Your task to perform on an android device: Open settings Image 0: 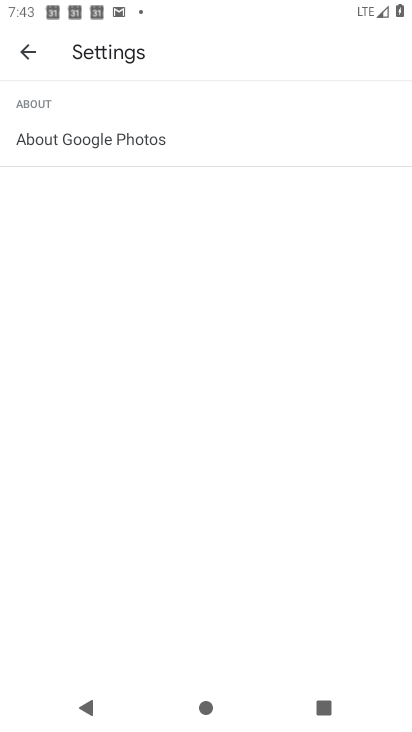
Step 0: press home button
Your task to perform on an android device: Open settings Image 1: 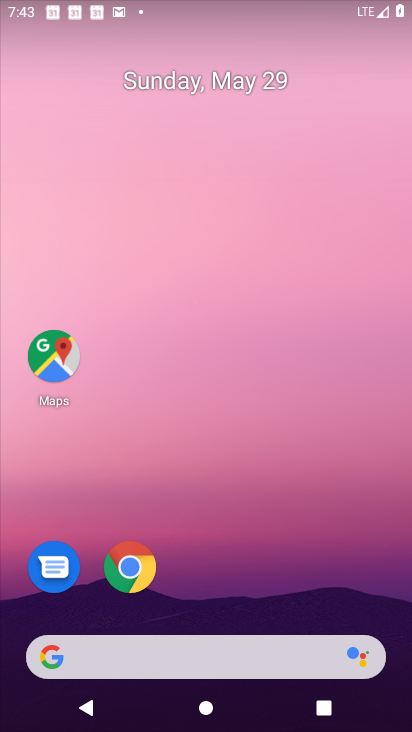
Step 1: drag from (286, 587) to (296, 282)
Your task to perform on an android device: Open settings Image 2: 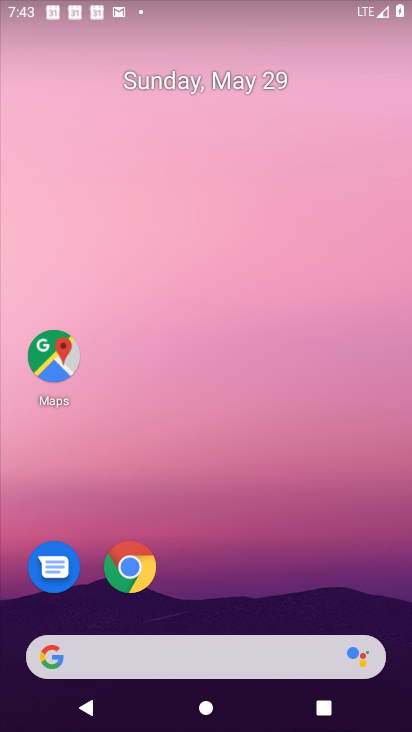
Step 2: drag from (227, 592) to (309, 52)
Your task to perform on an android device: Open settings Image 3: 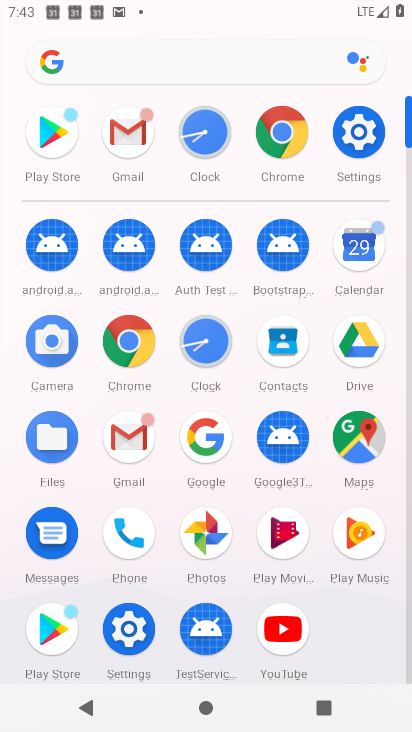
Step 3: click (370, 112)
Your task to perform on an android device: Open settings Image 4: 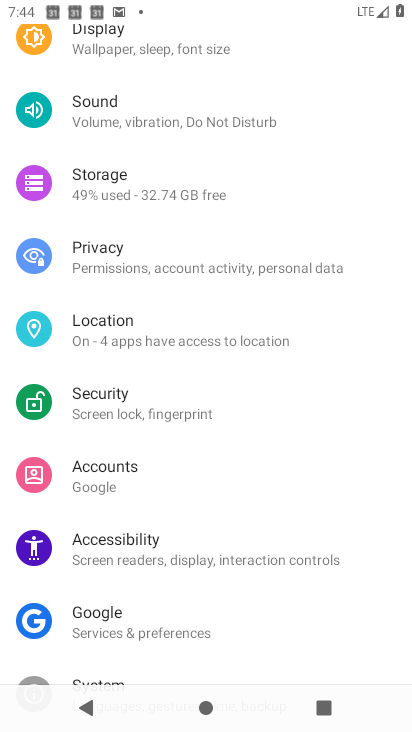
Step 4: task complete